Your task to perform on an android device: Empty the shopping cart on ebay.com. Search for "logitech g502" on ebay.com, select the first entry, add it to the cart, then select checkout. Image 0: 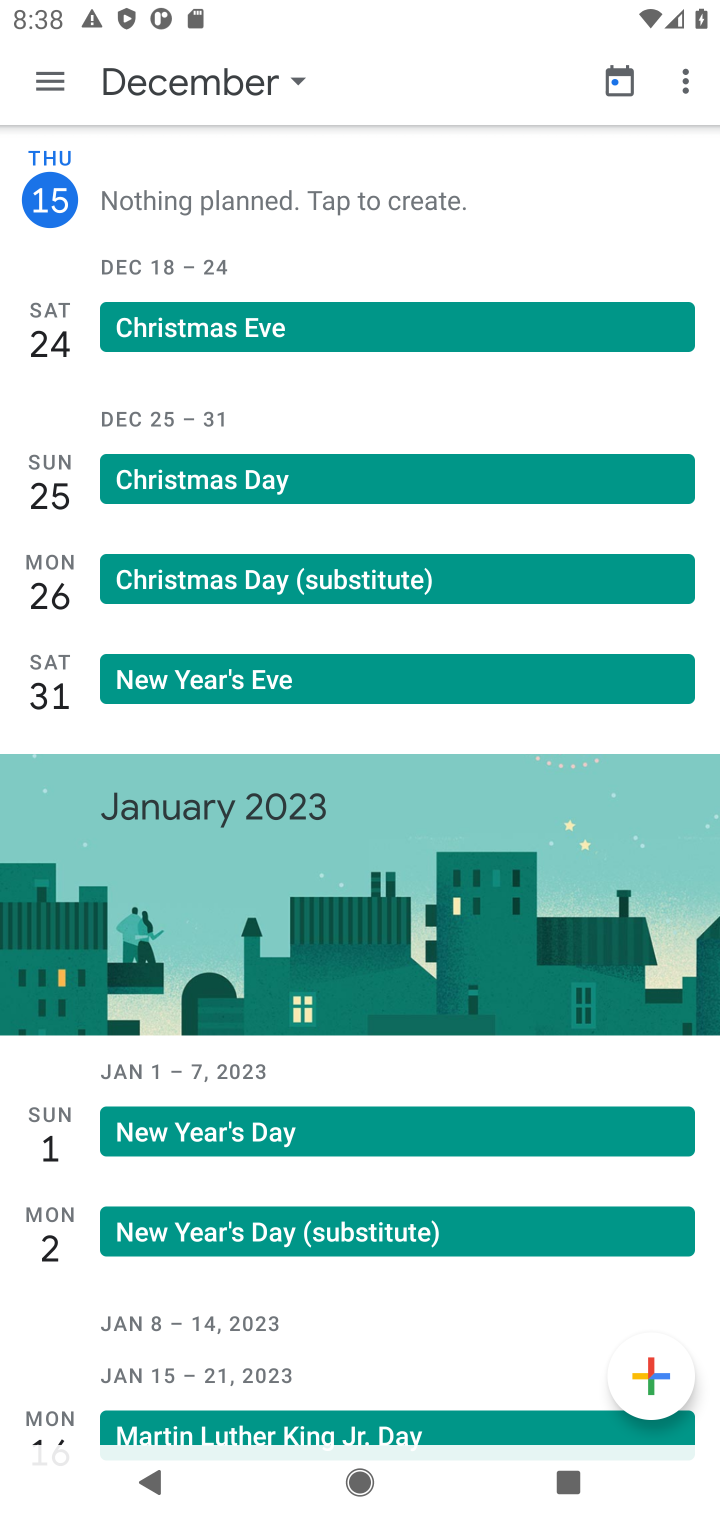
Step 0: press home button
Your task to perform on an android device: Empty the shopping cart on ebay.com. Search for "logitech g502" on ebay.com, select the first entry, add it to the cart, then select checkout. Image 1: 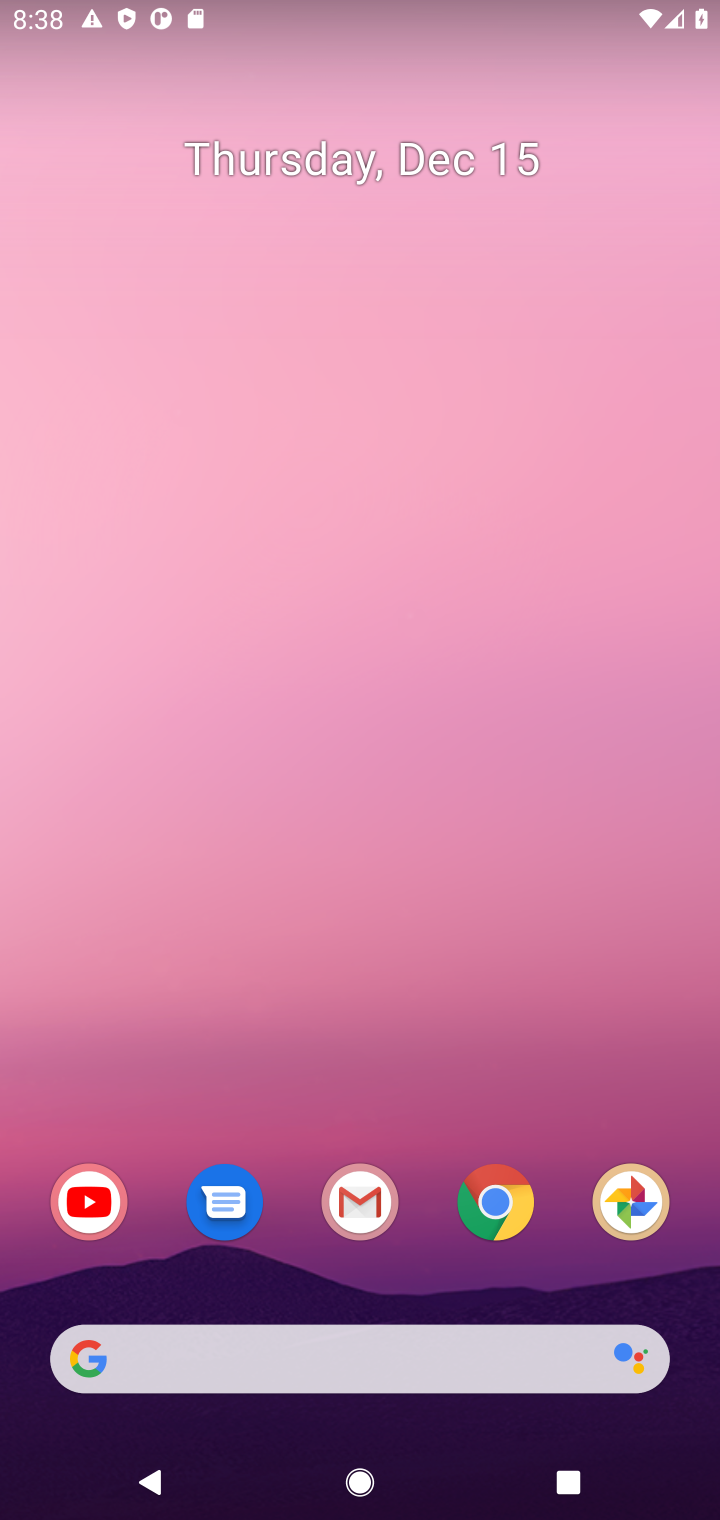
Step 1: click (507, 1212)
Your task to perform on an android device: Empty the shopping cart on ebay.com. Search for "logitech g502" on ebay.com, select the first entry, add it to the cart, then select checkout. Image 2: 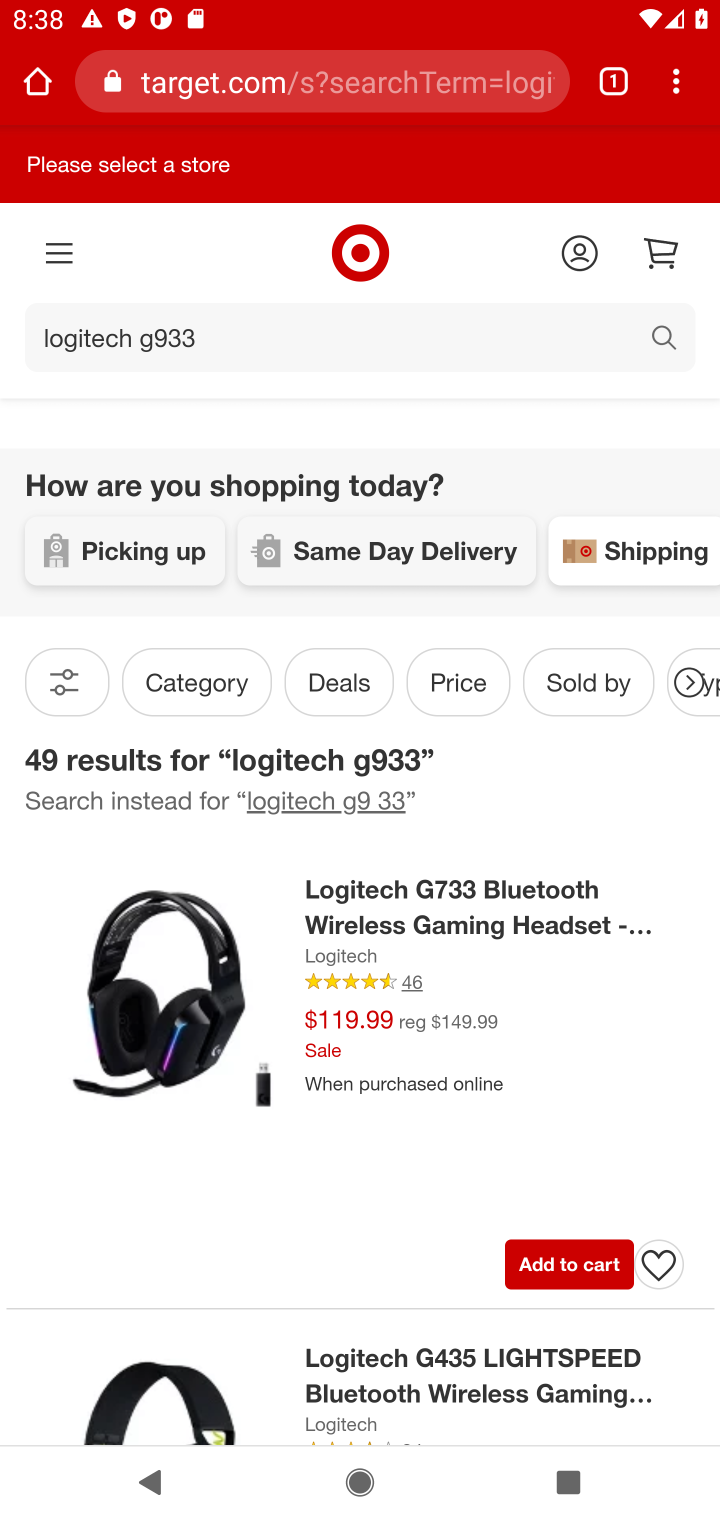
Step 2: click (241, 91)
Your task to perform on an android device: Empty the shopping cart on ebay.com. Search for "logitech g502" on ebay.com, select the first entry, add it to the cart, then select checkout. Image 3: 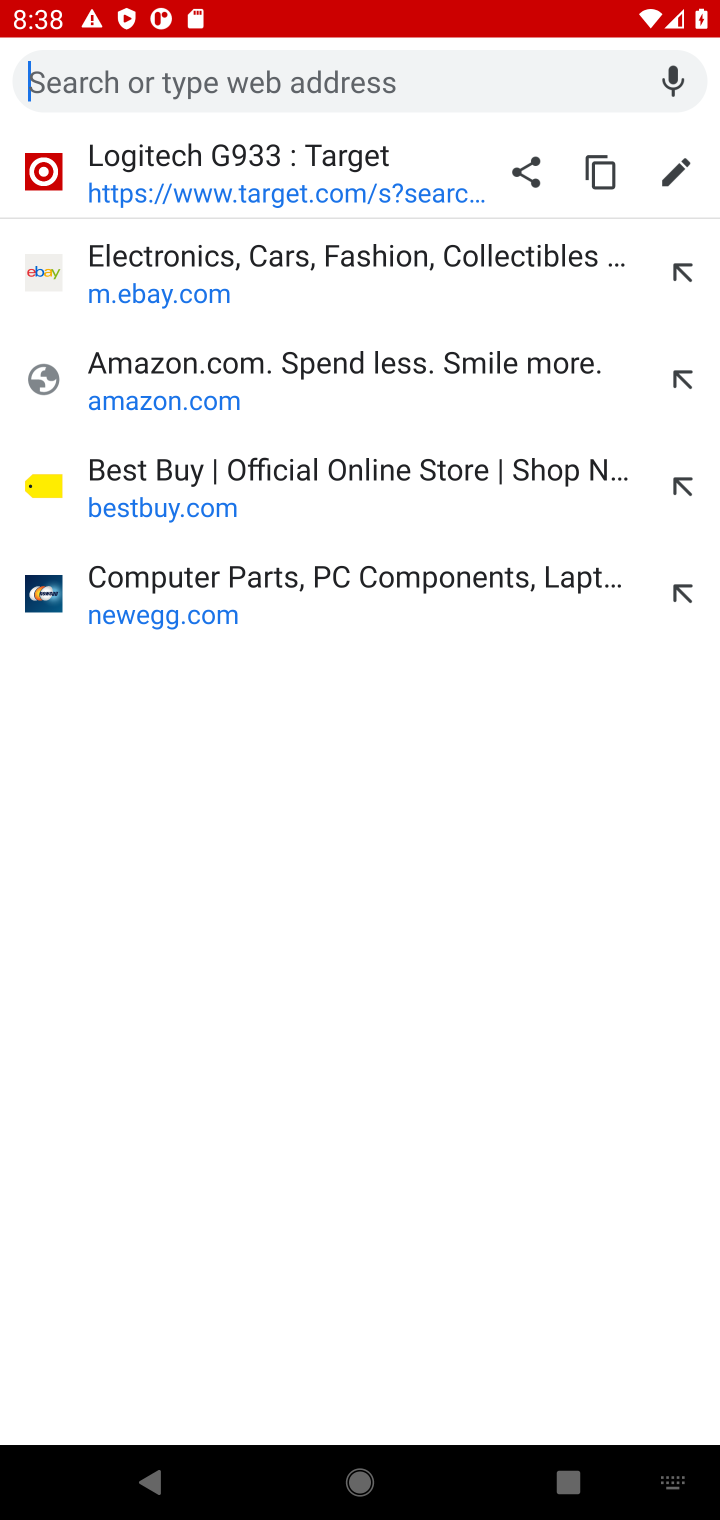
Step 3: click (161, 273)
Your task to perform on an android device: Empty the shopping cart on ebay.com. Search for "logitech g502" on ebay.com, select the first entry, add it to the cart, then select checkout. Image 4: 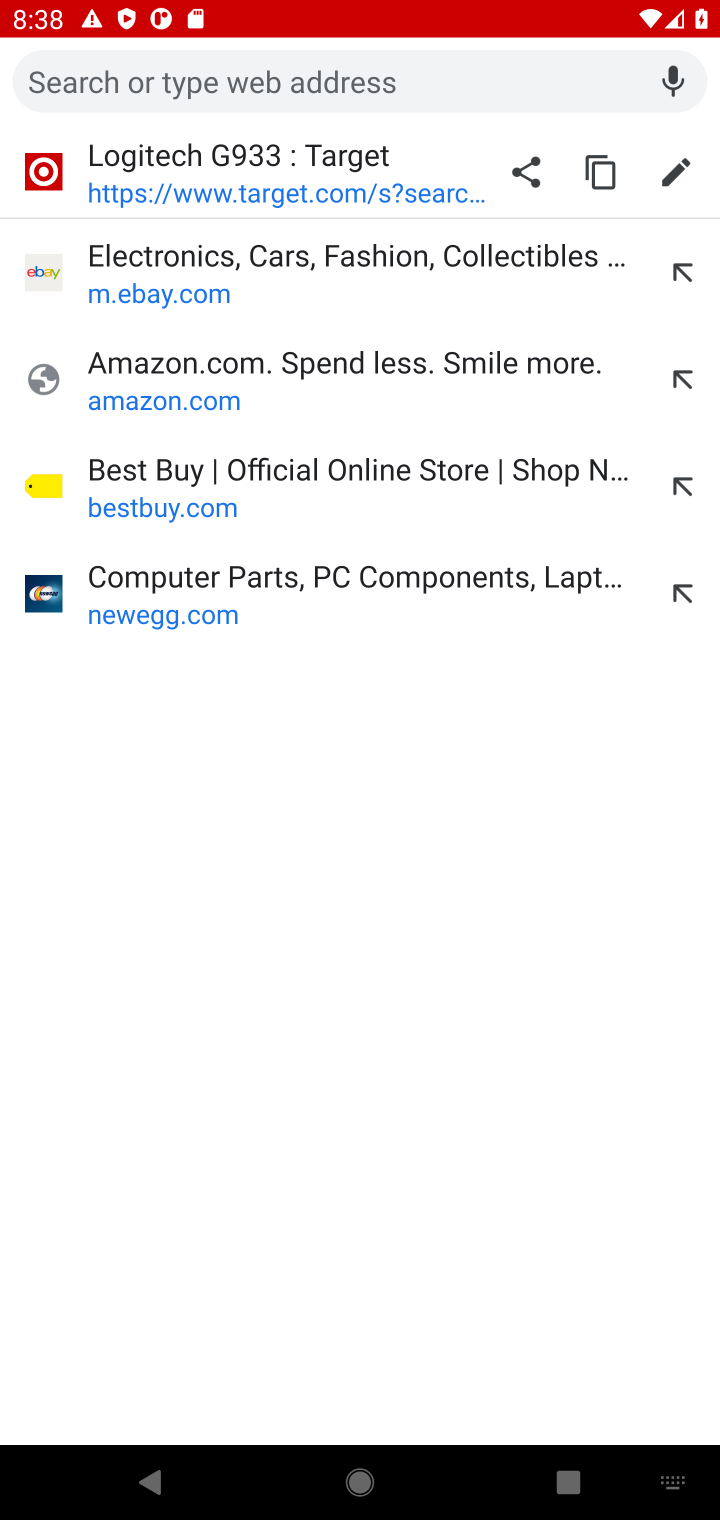
Step 4: click (156, 301)
Your task to perform on an android device: Empty the shopping cart on ebay.com. Search for "logitech g502" on ebay.com, select the first entry, add it to the cart, then select checkout. Image 5: 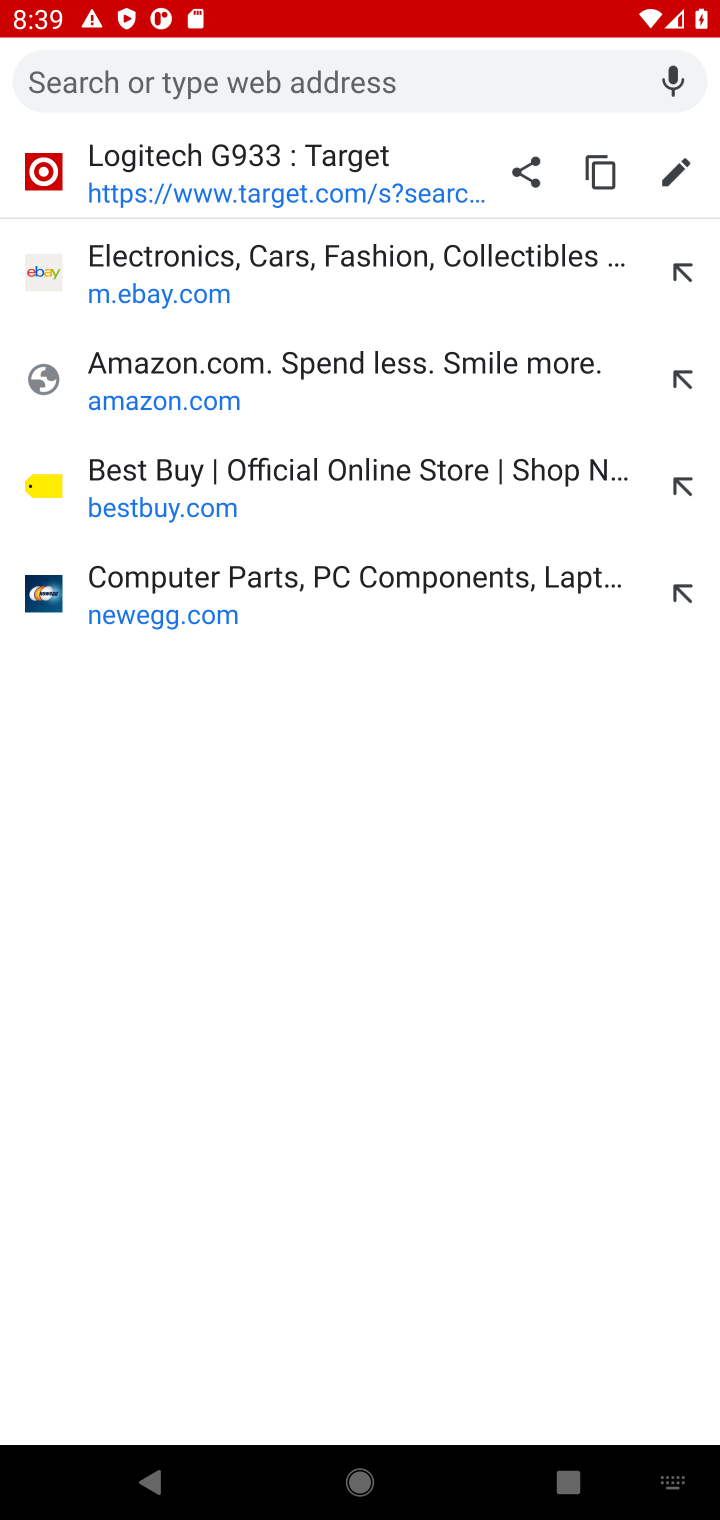
Step 5: click (160, 290)
Your task to perform on an android device: Empty the shopping cart on ebay.com. Search for "logitech g502" on ebay.com, select the first entry, add it to the cart, then select checkout. Image 6: 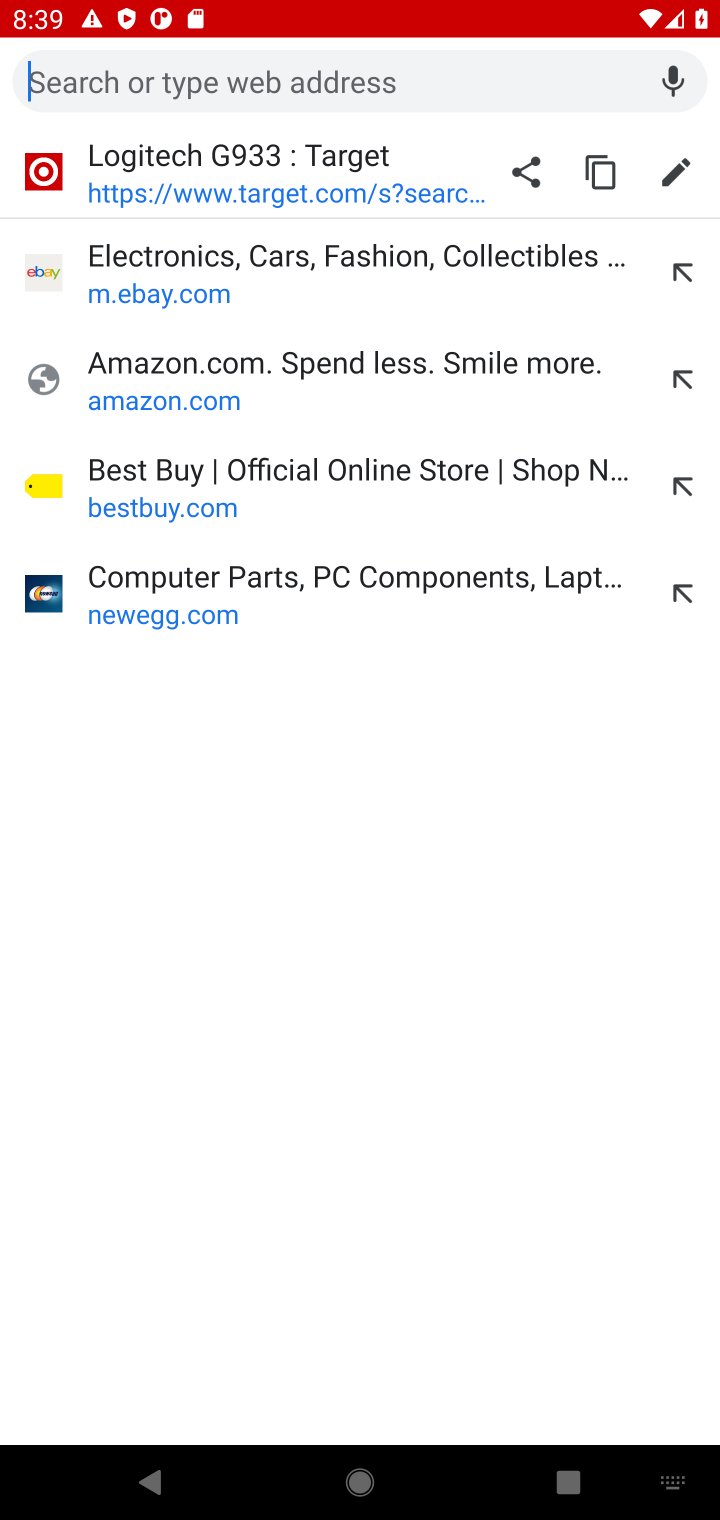
Step 6: click (150, 285)
Your task to perform on an android device: Empty the shopping cart on ebay.com. Search for "logitech g502" on ebay.com, select the first entry, add it to the cart, then select checkout. Image 7: 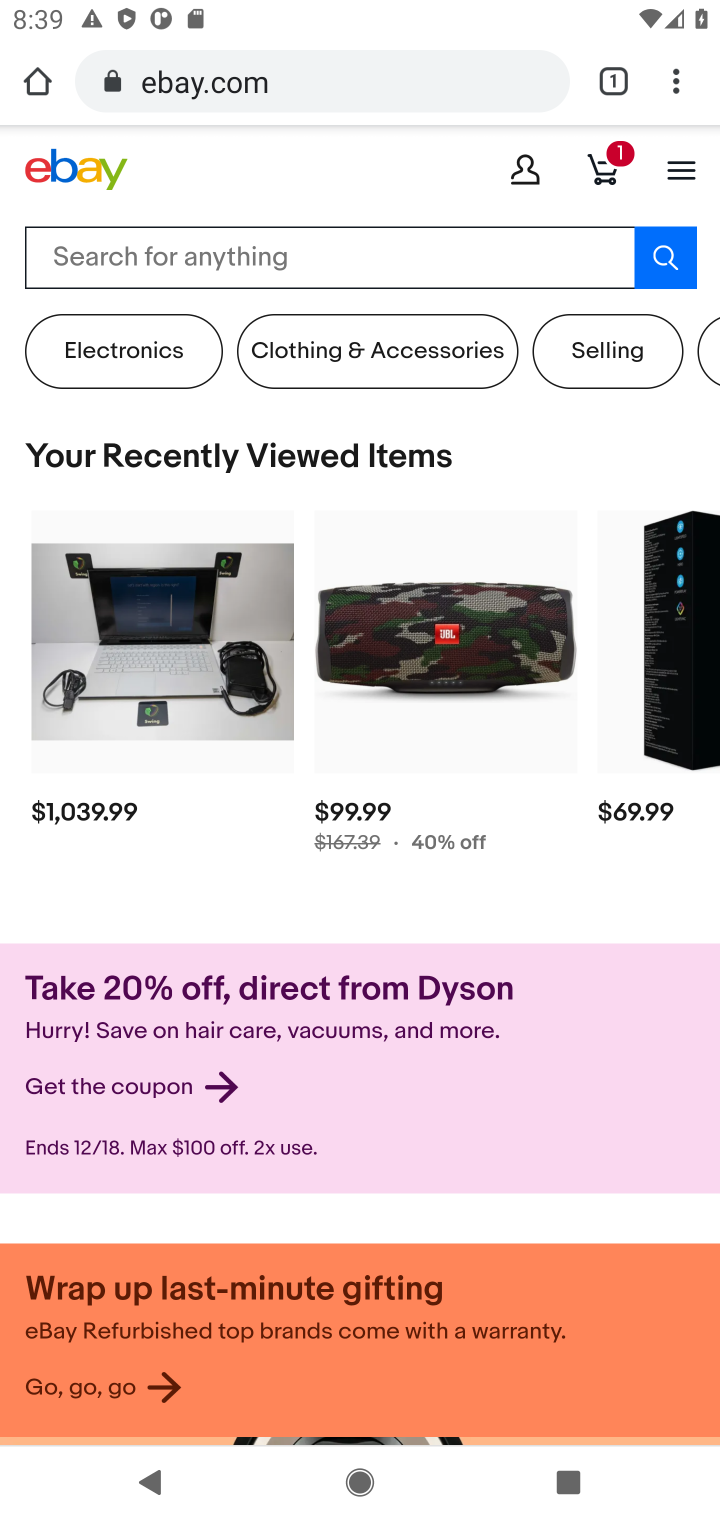
Step 7: click (611, 172)
Your task to perform on an android device: Empty the shopping cart on ebay.com. Search for "logitech g502" on ebay.com, select the first entry, add it to the cart, then select checkout. Image 8: 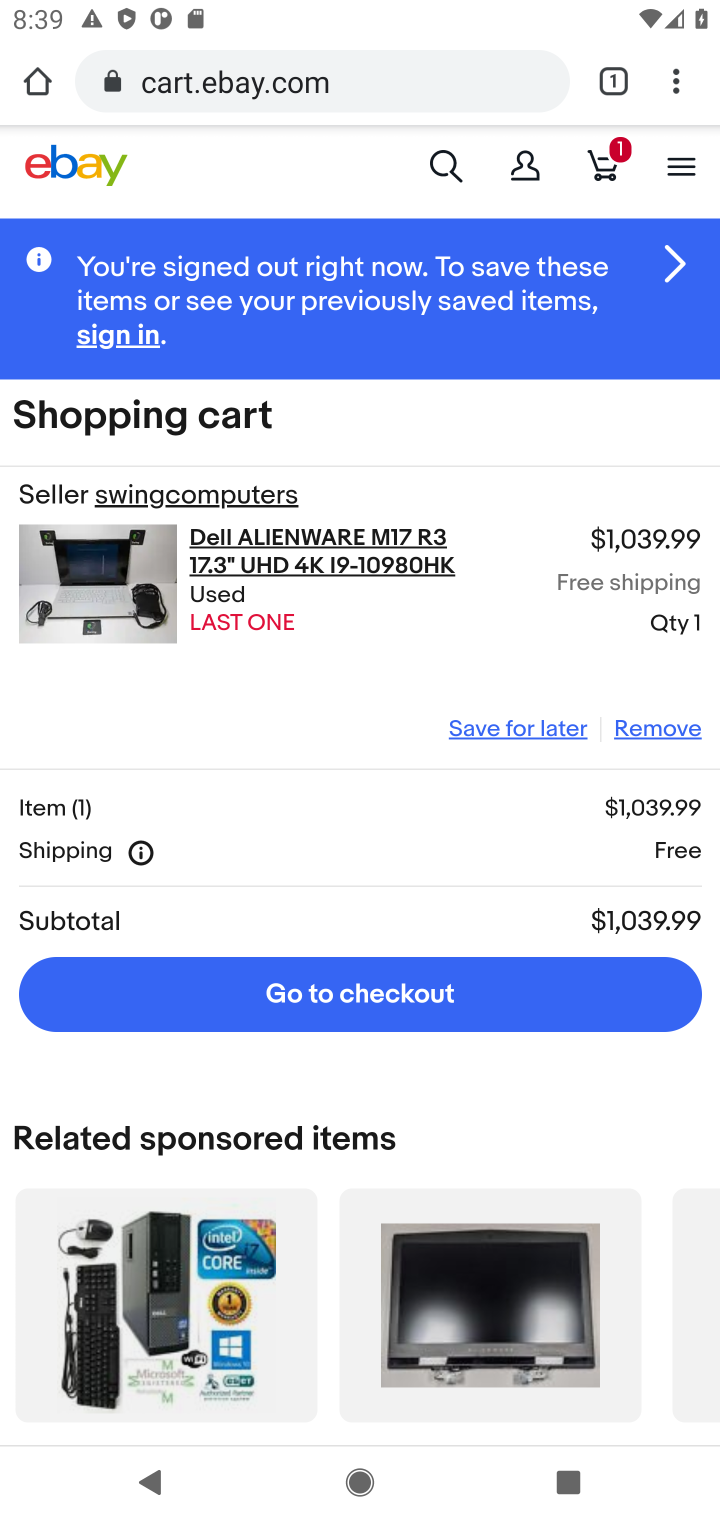
Step 8: click (648, 731)
Your task to perform on an android device: Empty the shopping cart on ebay.com. Search for "logitech g502" on ebay.com, select the first entry, add it to the cart, then select checkout. Image 9: 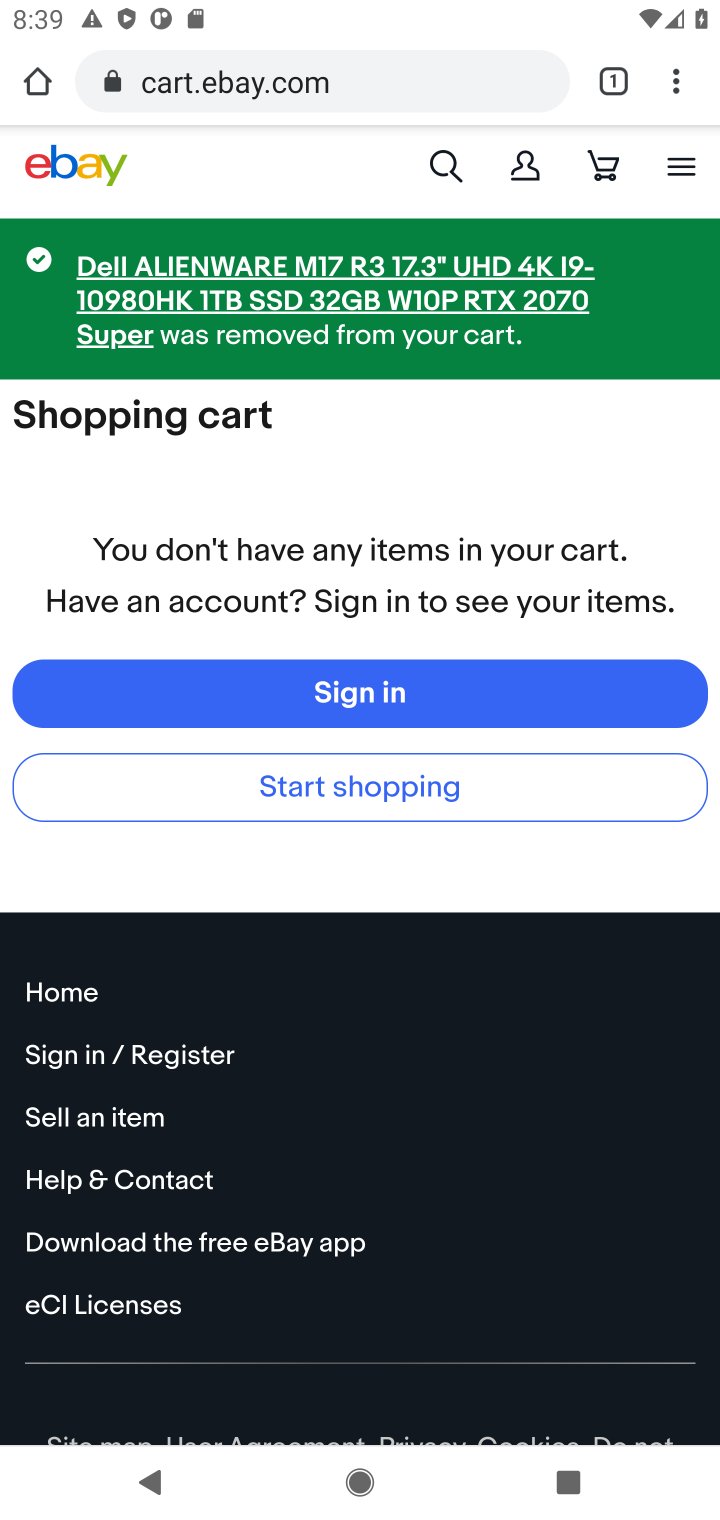
Step 9: click (454, 172)
Your task to perform on an android device: Empty the shopping cart on ebay.com. Search for "logitech g502" on ebay.com, select the first entry, add it to the cart, then select checkout. Image 10: 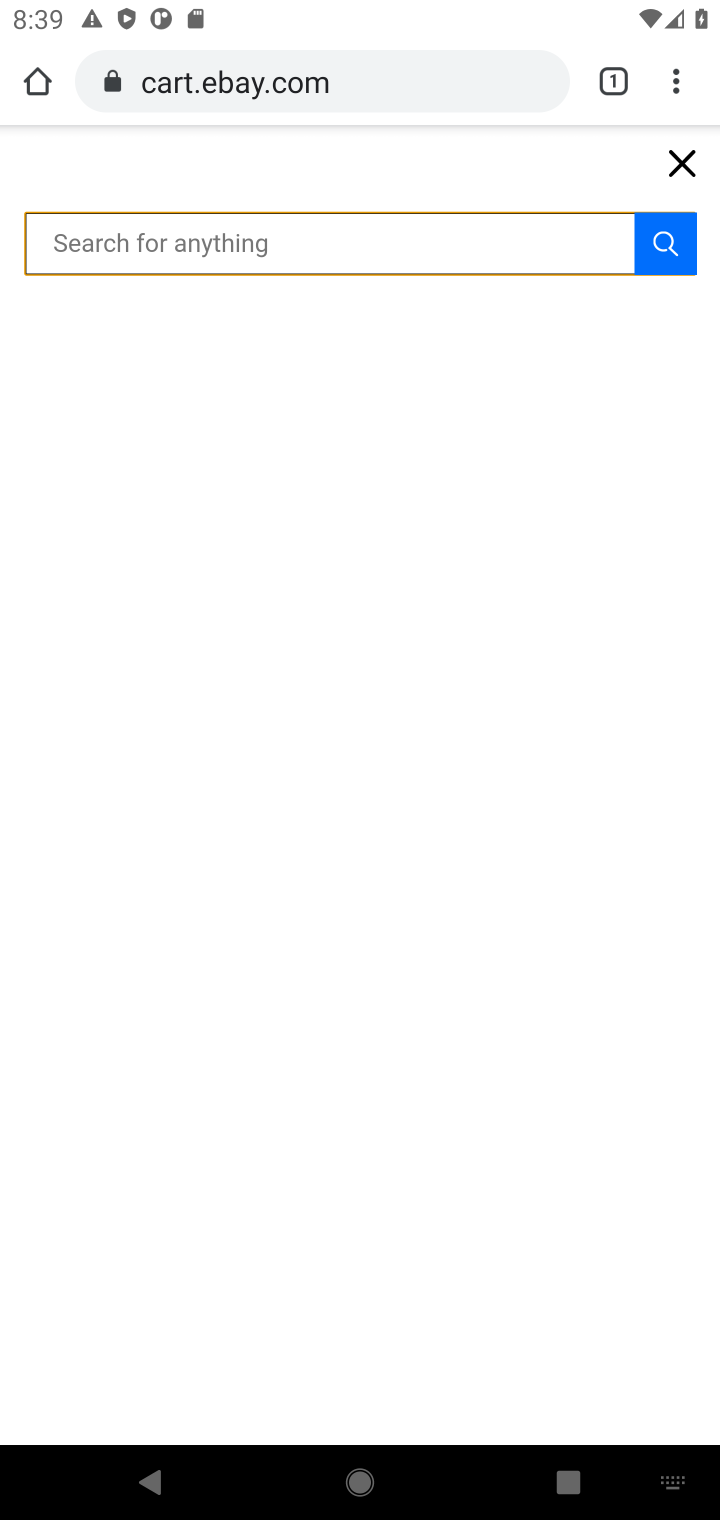
Step 10: type "logitech g502"
Your task to perform on an android device: Empty the shopping cart on ebay.com. Search for "logitech g502" on ebay.com, select the first entry, add it to the cart, then select checkout. Image 11: 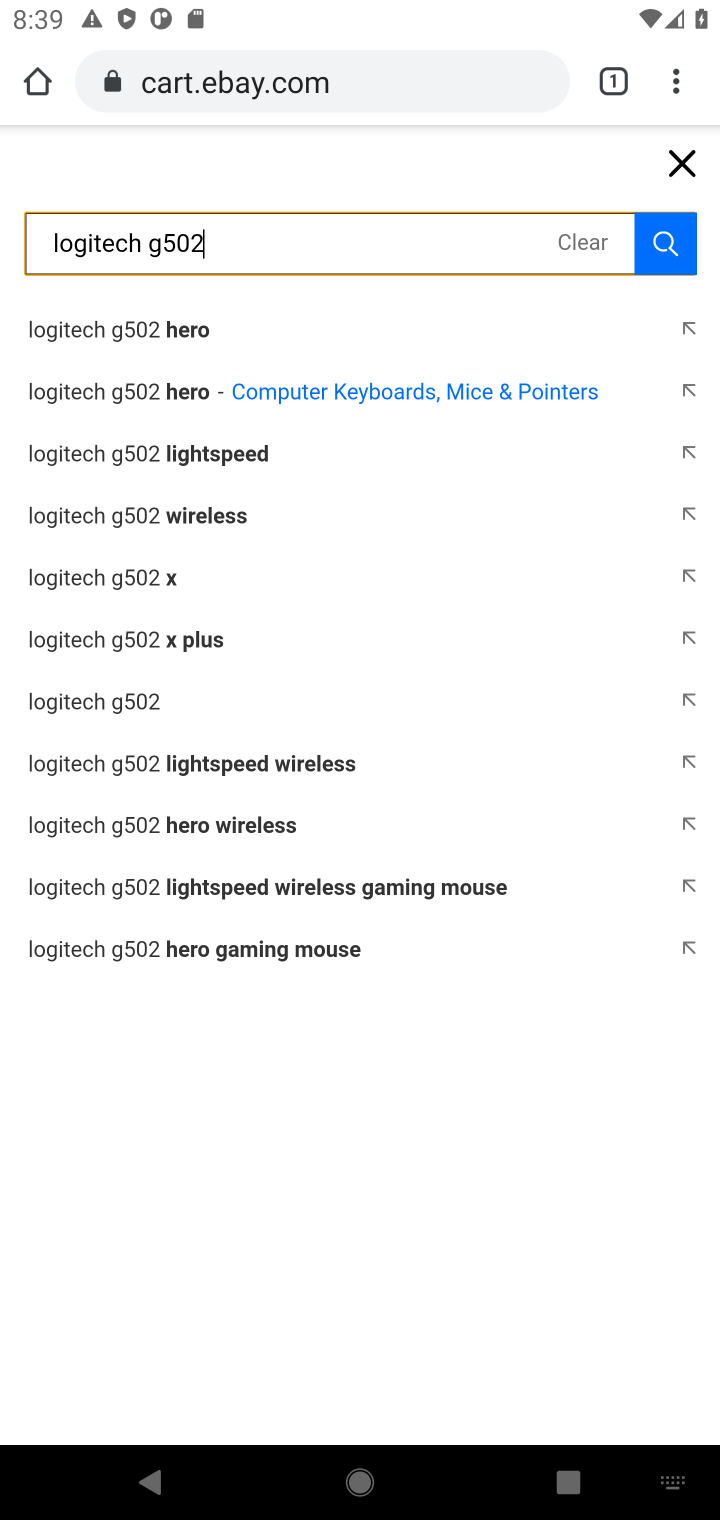
Step 11: click (74, 695)
Your task to perform on an android device: Empty the shopping cart on ebay.com. Search for "logitech g502" on ebay.com, select the first entry, add it to the cart, then select checkout. Image 12: 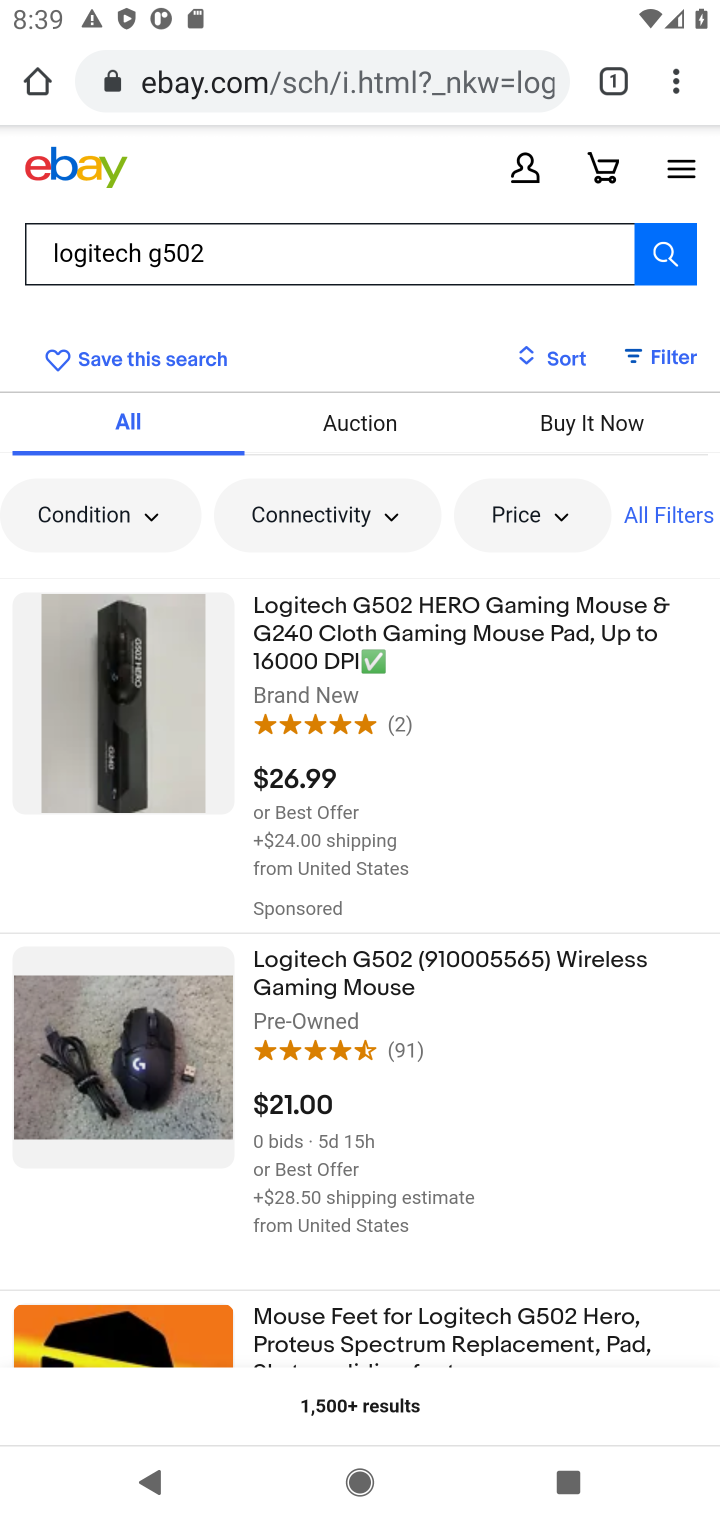
Step 12: click (287, 631)
Your task to perform on an android device: Empty the shopping cart on ebay.com. Search for "logitech g502" on ebay.com, select the first entry, add it to the cart, then select checkout. Image 13: 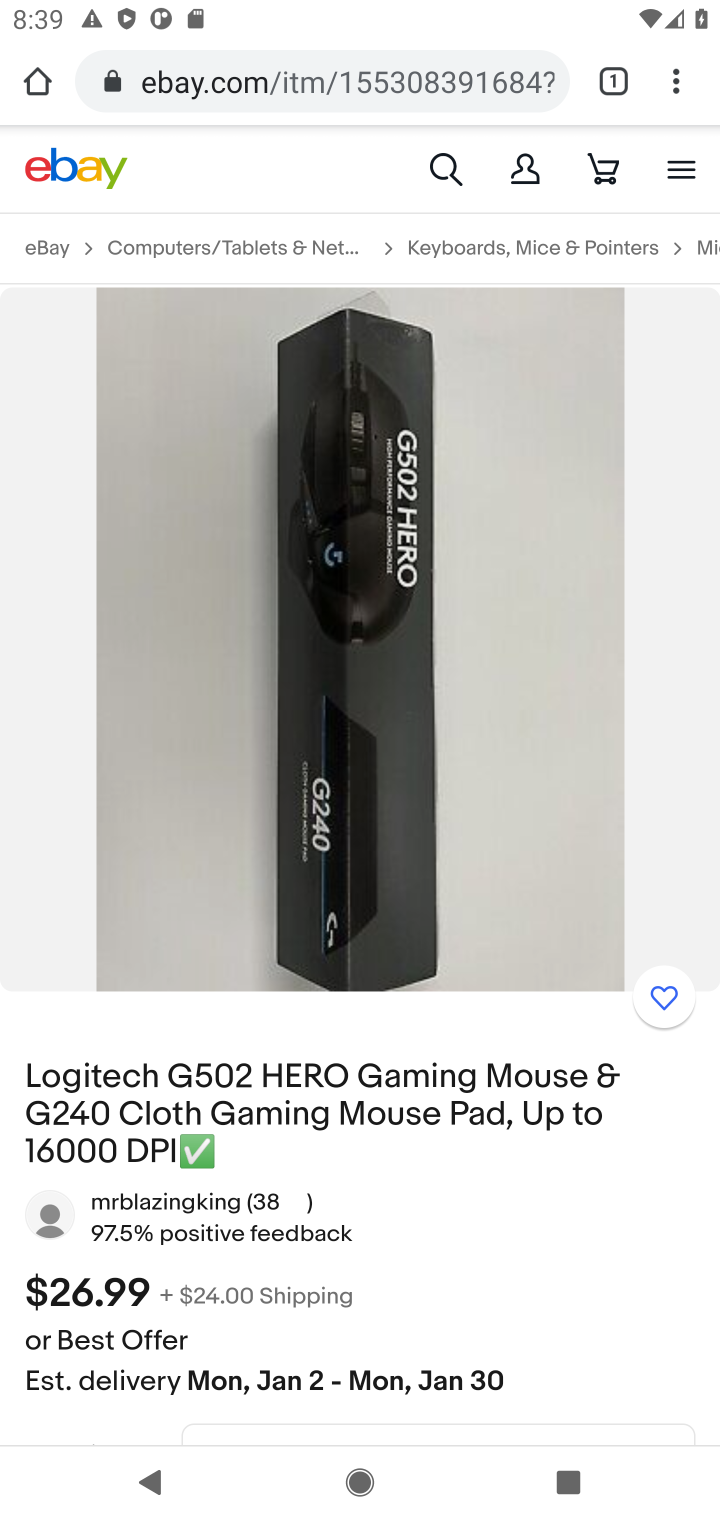
Step 13: drag from (251, 868) to (246, 506)
Your task to perform on an android device: Empty the shopping cart on ebay.com. Search for "logitech g502" on ebay.com, select the first entry, add it to the cart, then select checkout. Image 14: 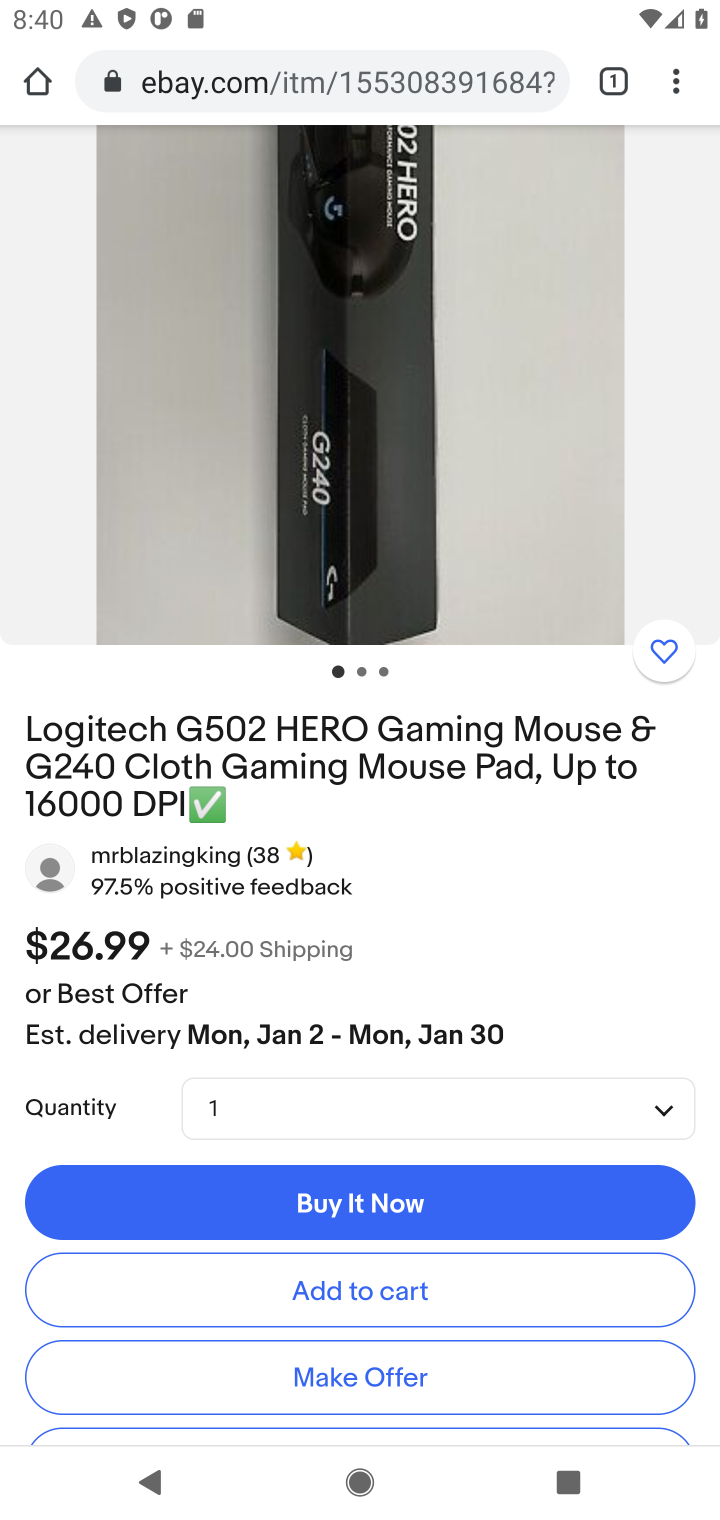
Step 14: click (305, 1282)
Your task to perform on an android device: Empty the shopping cart on ebay.com. Search for "logitech g502" on ebay.com, select the first entry, add it to the cart, then select checkout. Image 15: 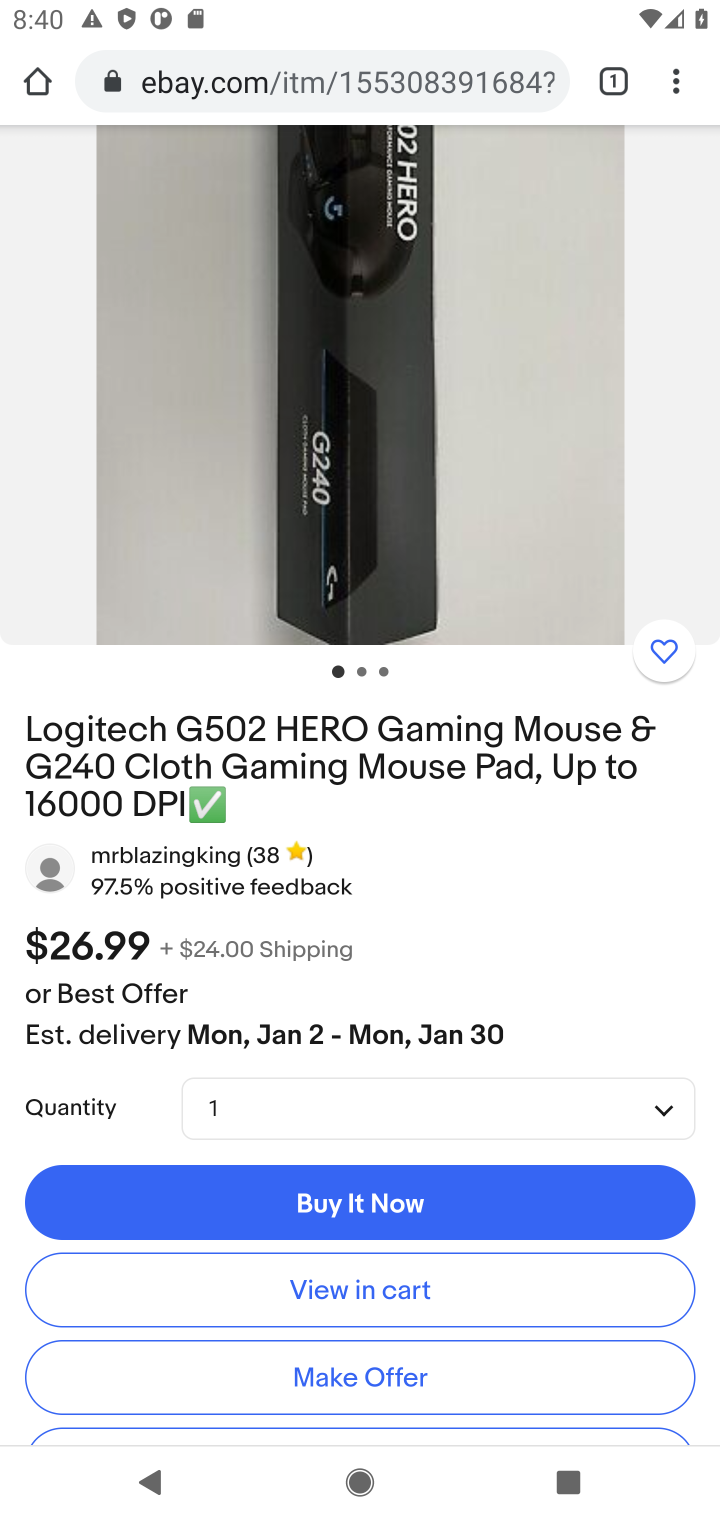
Step 15: click (339, 1289)
Your task to perform on an android device: Empty the shopping cart on ebay.com. Search for "logitech g502" on ebay.com, select the first entry, add it to the cart, then select checkout. Image 16: 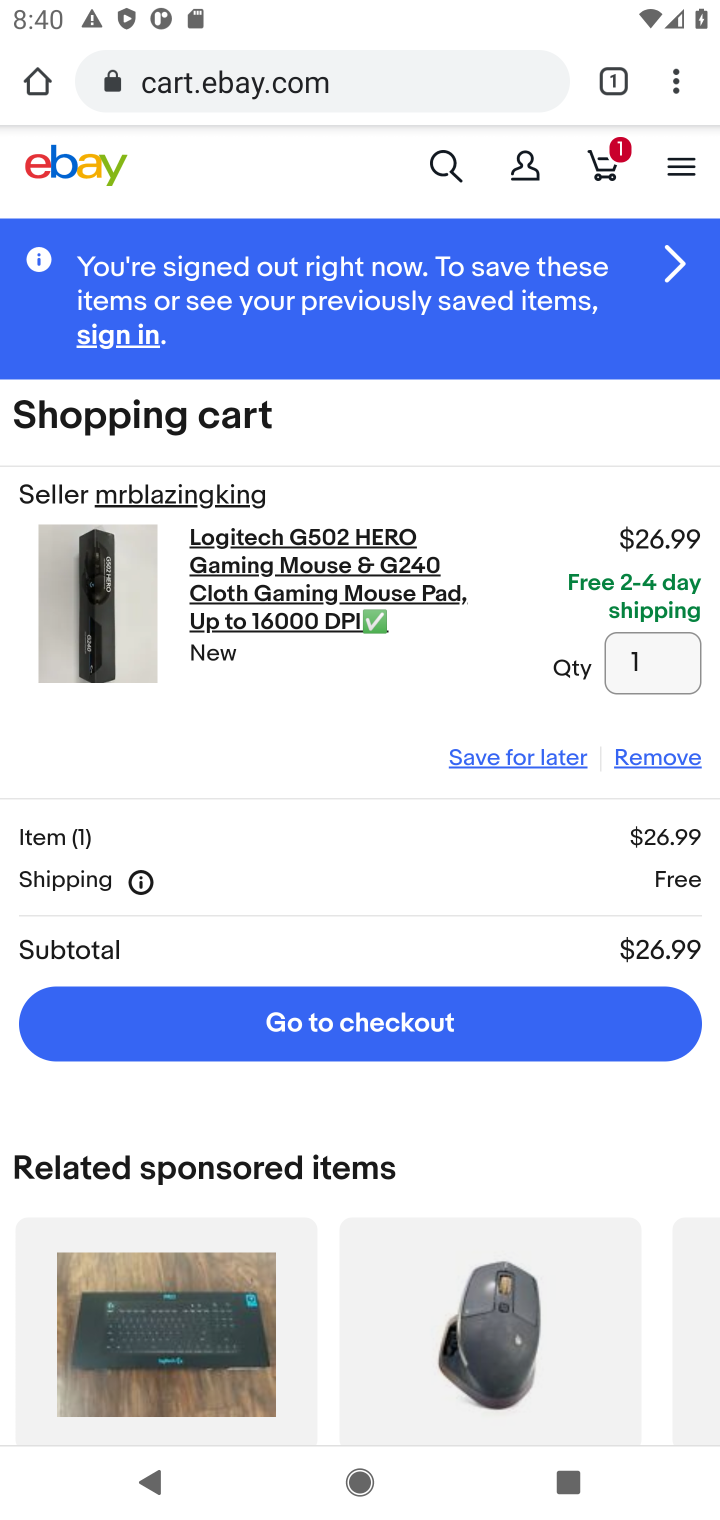
Step 16: click (351, 1034)
Your task to perform on an android device: Empty the shopping cart on ebay.com. Search for "logitech g502" on ebay.com, select the first entry, add it to the cart, then select checkout. Image 17: 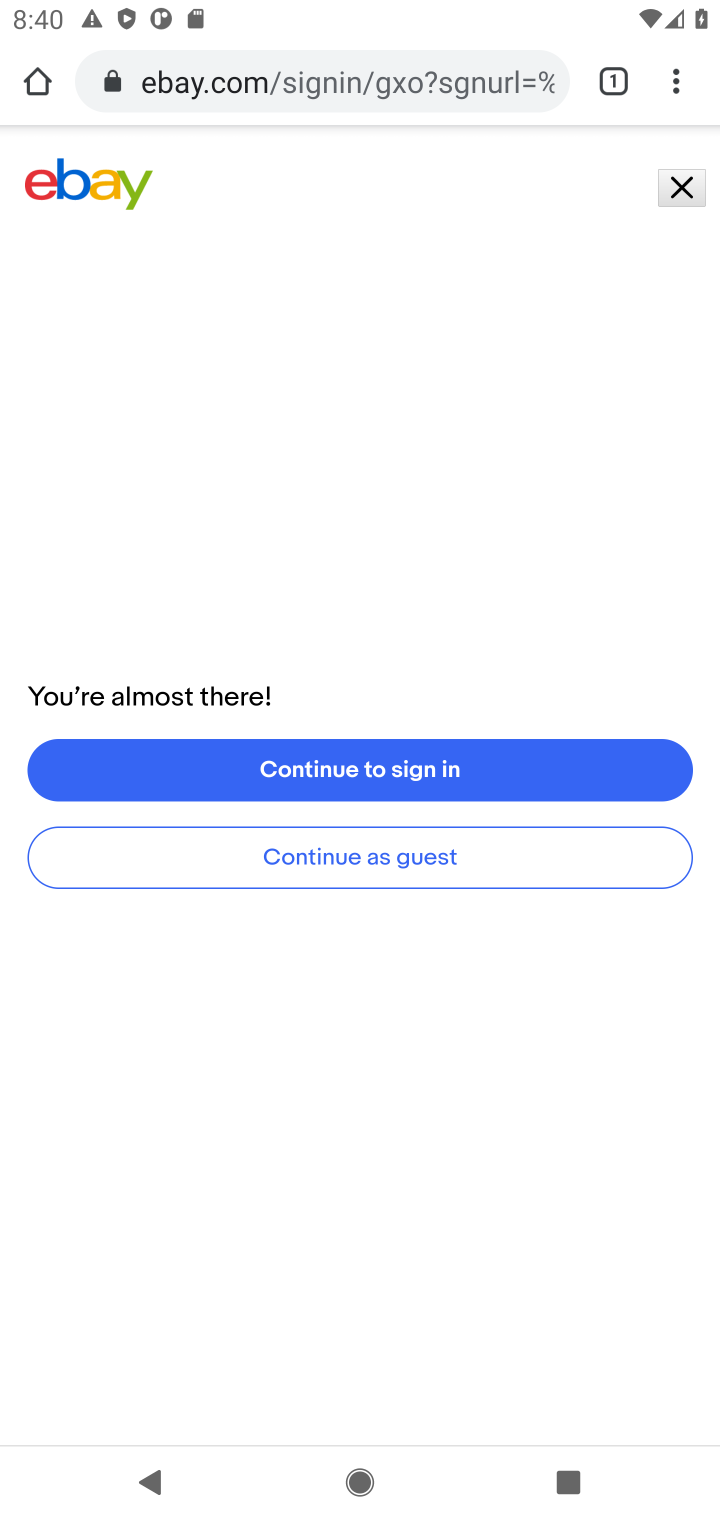
Step 17: task complete